Your task to perform on an android device: Go to sound settings Image 0: 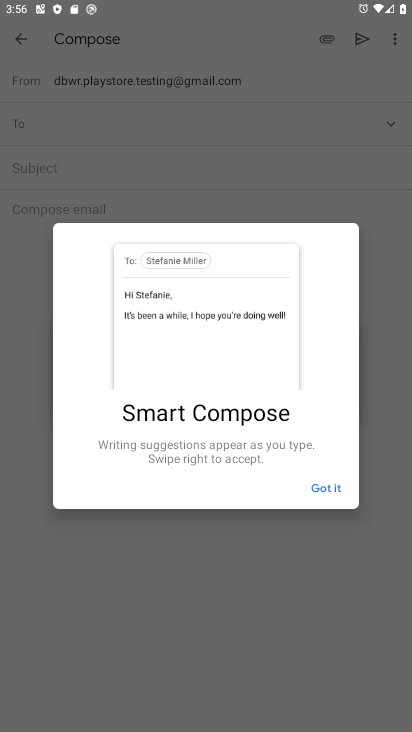
Step 0: press home button
Your task to perform on an android device: Go to sound settings Image 1: 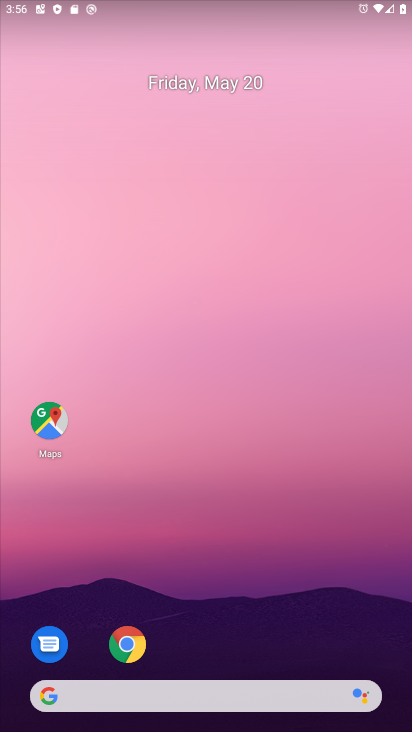
Step 1: drag from (257, 586) to (285, 17)
Your task to perform on an android device: Go to sound settings Image 2: 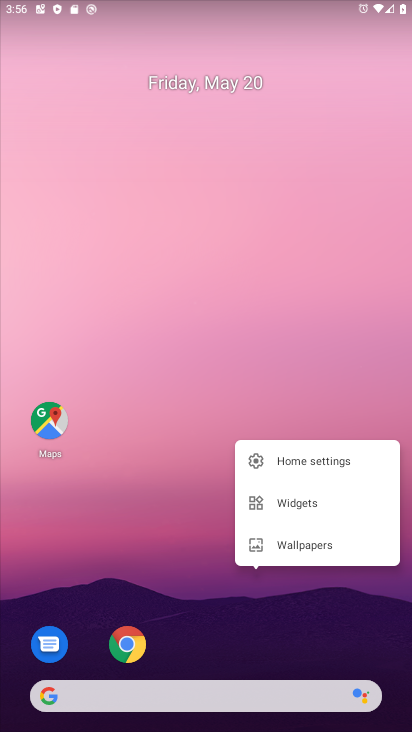
Step 2: click (259, 345)
Your task to perform on an android device: Go to sound settings Image 3: 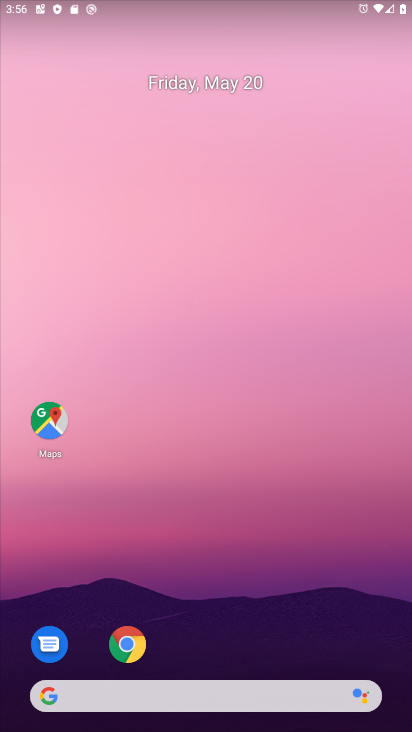
Step 3: drag from (287, 627) to (229, 32)
Your task to perform on an android device: Go to sound settings Image 4: 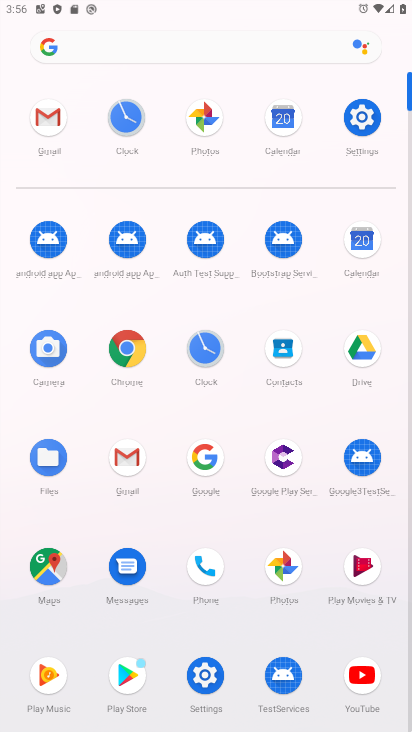
Step 4: click (350, 154)
Your task to perform on an android device: Go to sound settings Image 5: 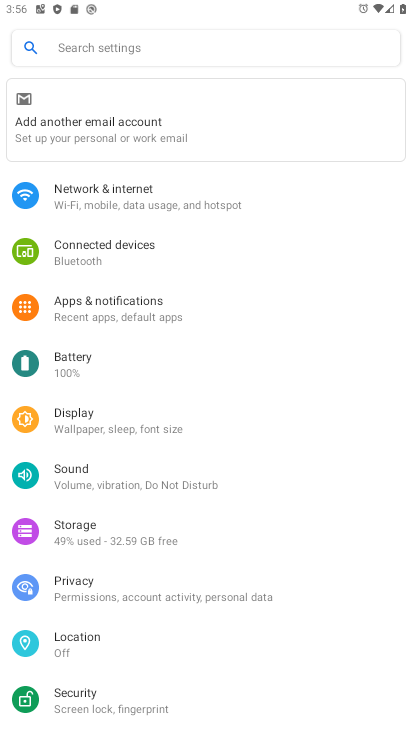
Step 5: click (156, 492)
Your task to perform on an android device: Go to sound settings Image 6: 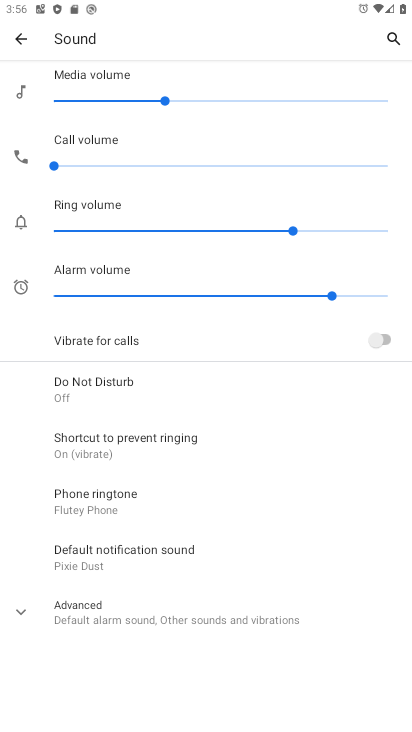
Step 6: task complete